Your task to perform on an android device: turn on showing notifications on the lock screen Image 0: 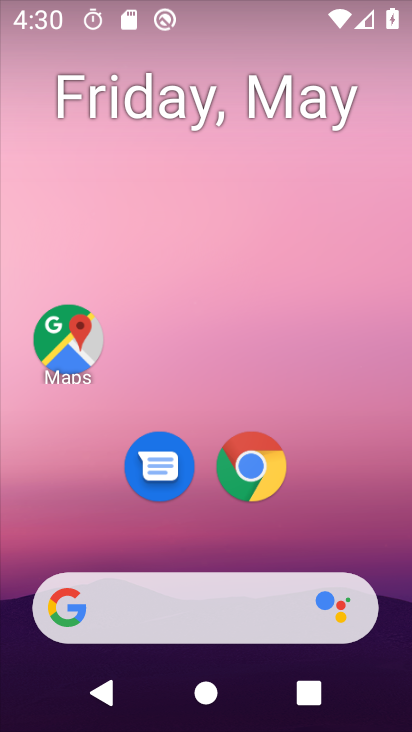
Step 0: click (379, 346)
Your task to perform on an android device: turn on showing notifications on the lock screen Image 1: 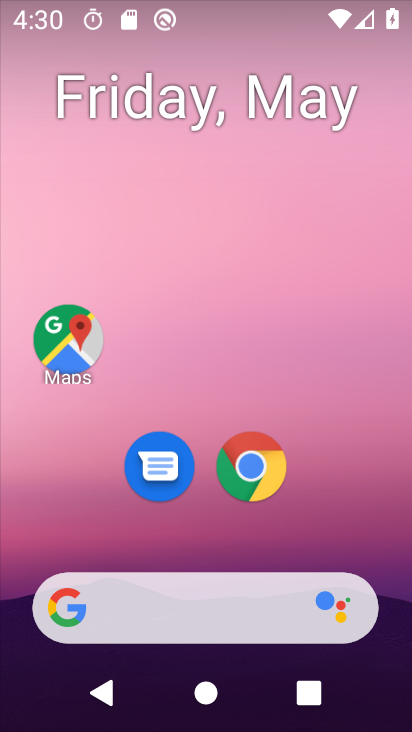
Step 1: drag from (388, 645) to (370, 285)
Your task to perform on an android device: turn on showing notifications on the lock screen Image 2: 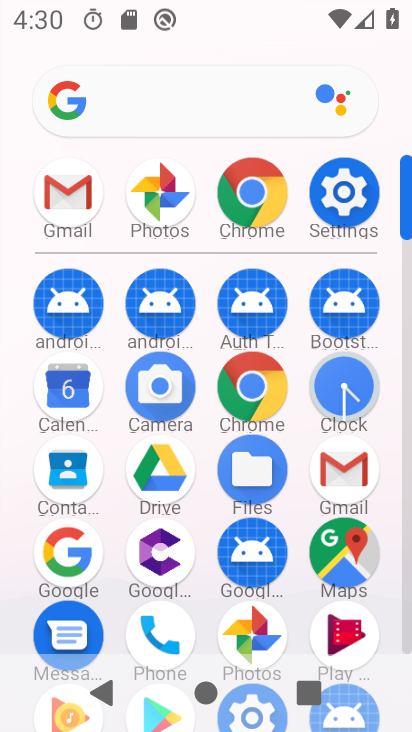
Step 2: click (336, 203)
Your task to perform on an android device: turn on showing notifications on the lock screen Image 3: 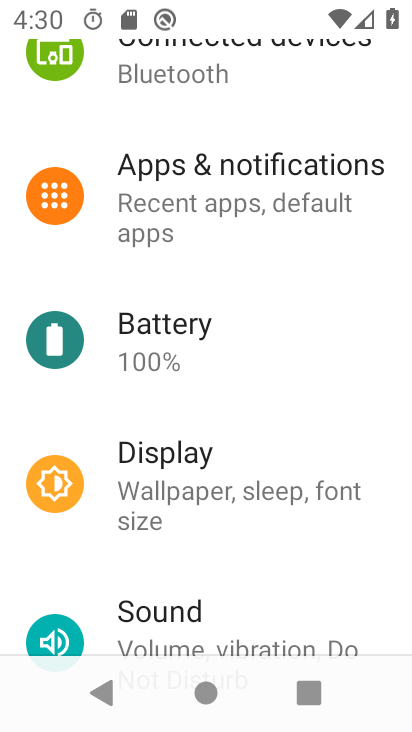
Step 3: click (206, 191)
Your task to perform on an android device: turn on showing notifications on the lock screen Image 4: 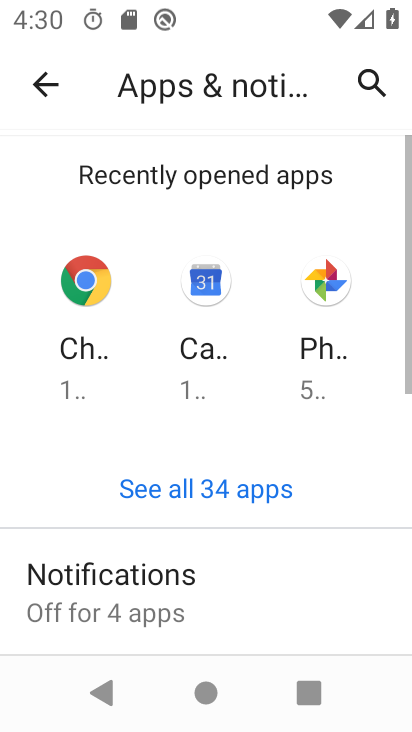
Step 4: click (121, 593)
Your task to perform on an android device: turn on showing notifications on the lock screen Image 5: 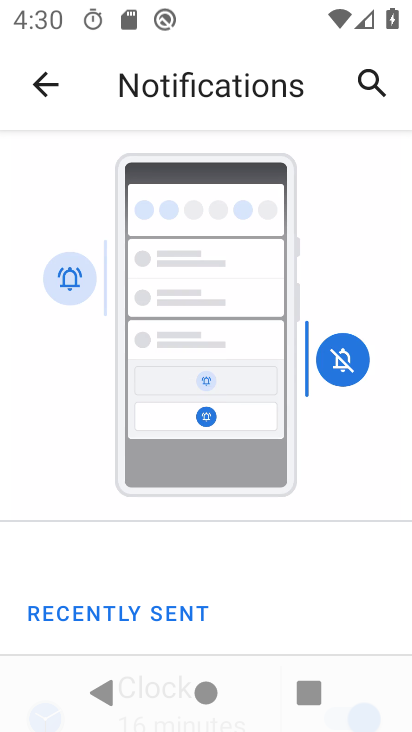
Step 5: drag from (318, 610) to (314, 213)
Your task to perform on an android device: turn on showing notifications on the lock screen Image 6: 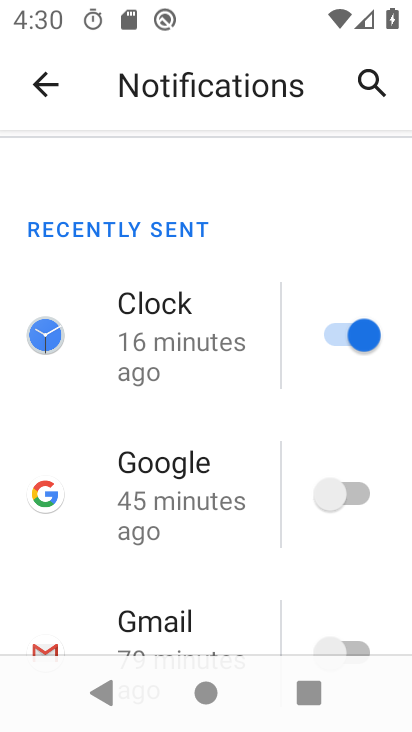
Step 6: drag from (275, 623) to (249, 316)
Your task to perform on an android device: turn on showing notifications on the lock screen Image 7: 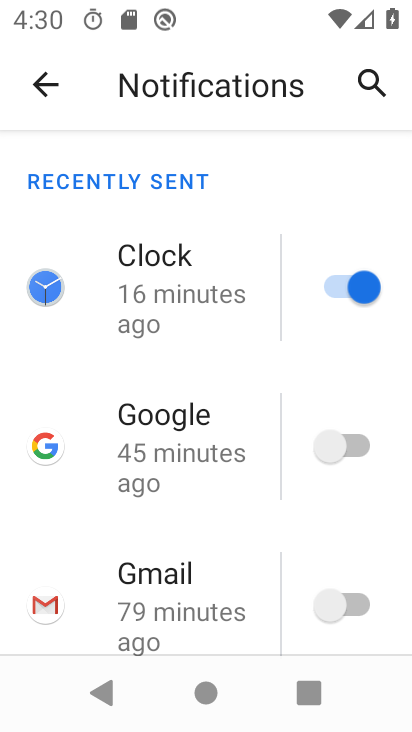
Step 7: drag from (277, 622) to (276, 319)
Your task to perform on an android device: turn on showing notifications on the lock screen Image 8: 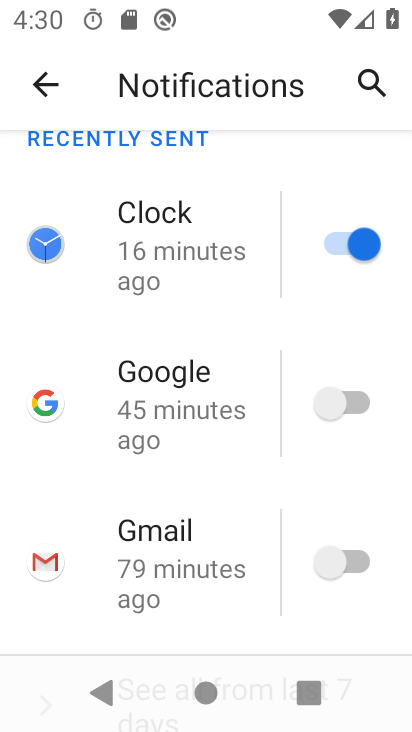
Step 8: drag from (260, 513) to (262, 202)
Your task to perform on an android device: turn on showing notifications on the lock screen Image 9: 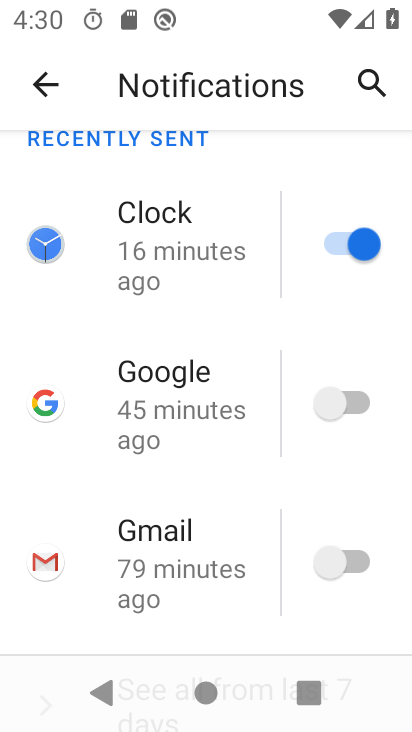
Step 9: click (249, 269)
Your task to perform on an android device: turn on showing notifications on the lock screen Image 10: 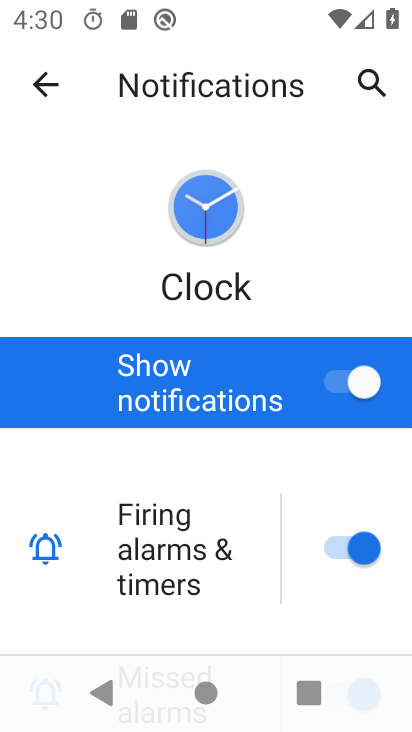
Step 10: click (32, 87)
Your task to perform on an android device: turn on showing notifications on the lock screen Image 11: 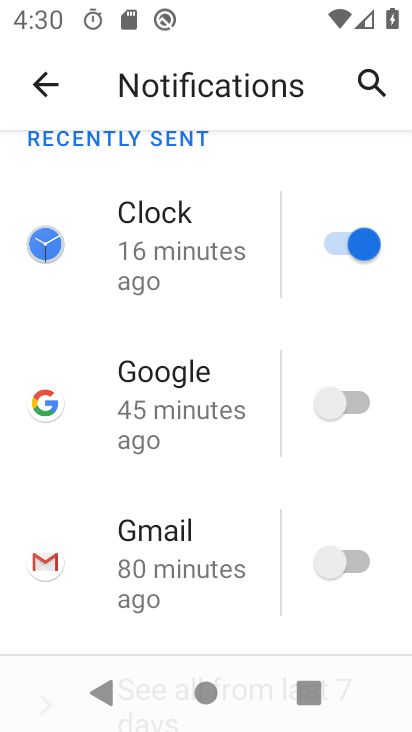
Step 11: drag from (267, 612) to (257, 177)
Your task to perform on an android device: turn on showing notifications on the lock screen Image 12: 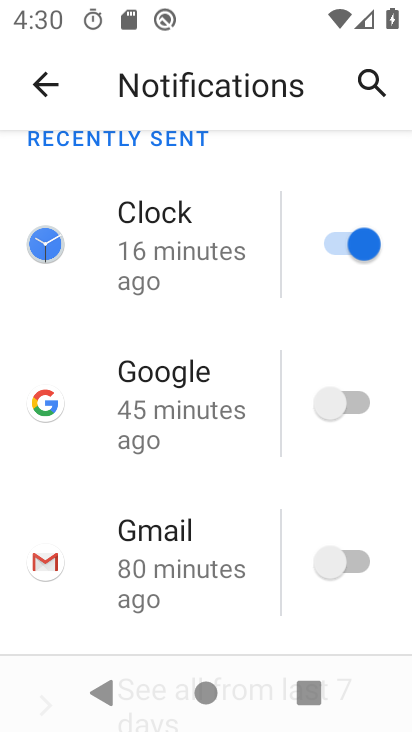
Step 12: drag from (284, 639) to (234, 284)
Your task to perform on an android device: turn on showing notifications on the lock screen Image 13: 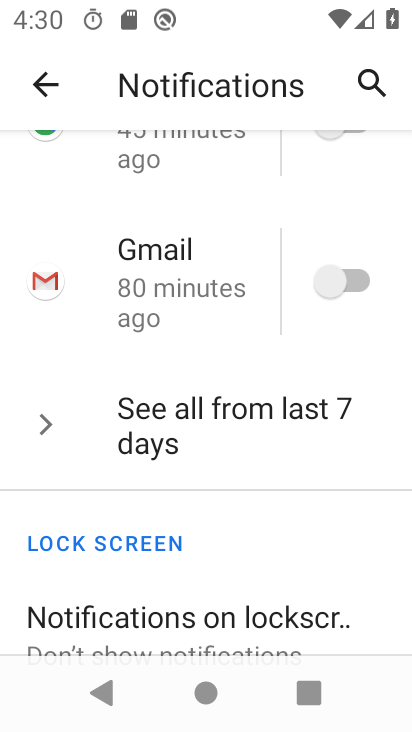
Step 13: click (193, 619)
Your task to perform on an android device: turn on showing notifications on the lock screen Image 14: 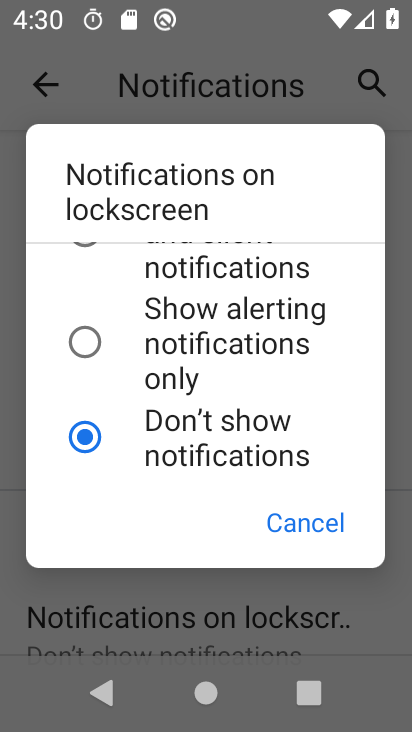
Step 14: drag from (144, 254) to (171, 456)
Your task to perform on an android device: turn on showing notifications on the lock screen Image 15: 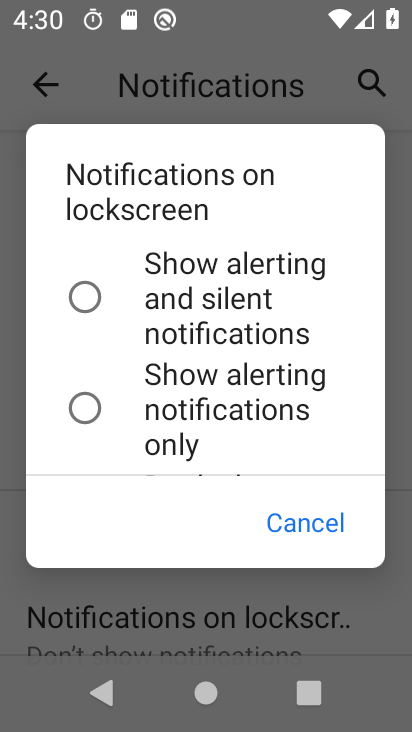
Step 15: click (84, 282)
Your task to perform on an android device: turn on showing notifications on the lock screen Image 16: 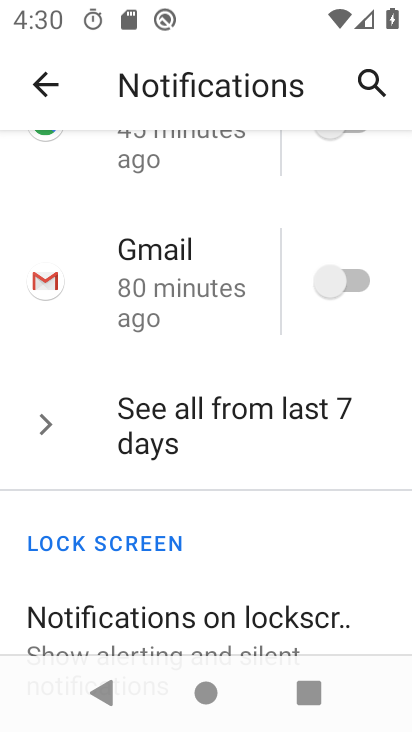
Step 16: task complete